Your task to perform on an android device: Go to location settings Image 0: 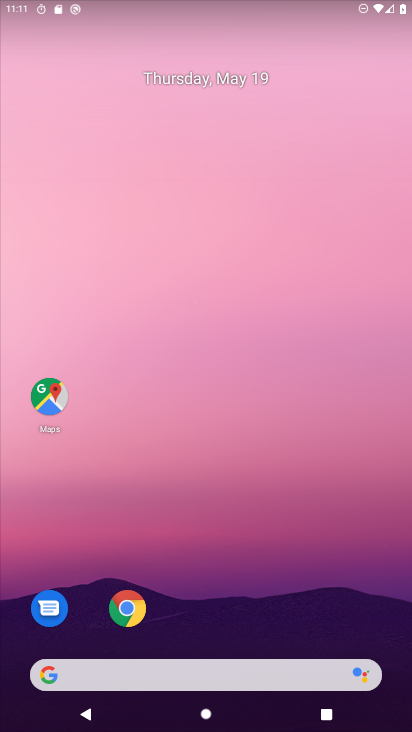
Step 0: drag from (397, 700) to (388, 143)
Your task to perform on an android device: Go to location settings Image 1: 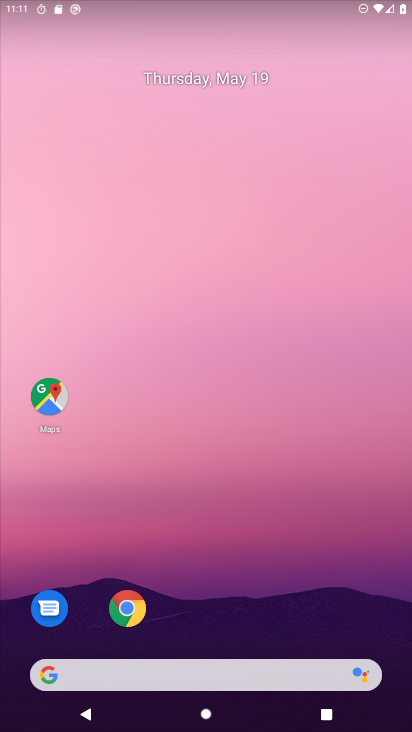
Step 1: drag from (407, 661) to (397, 215)
Your task to perform on an android device: Go to location settings Image 2: 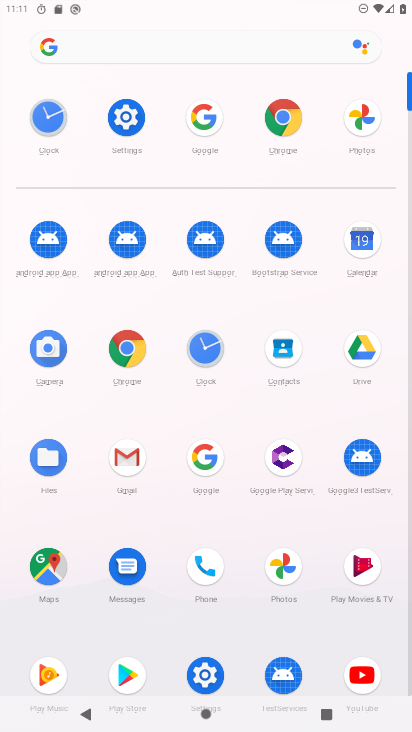
Step 2: click (121, 117)
Your task to perform on an android device: Go to location settings Image 3: 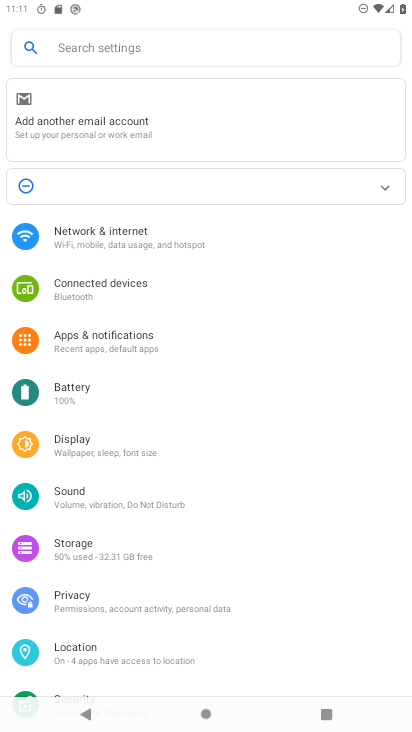
Step 3: click (77, 644)
Your task to perform on an android device: Go to location settings Image 4: 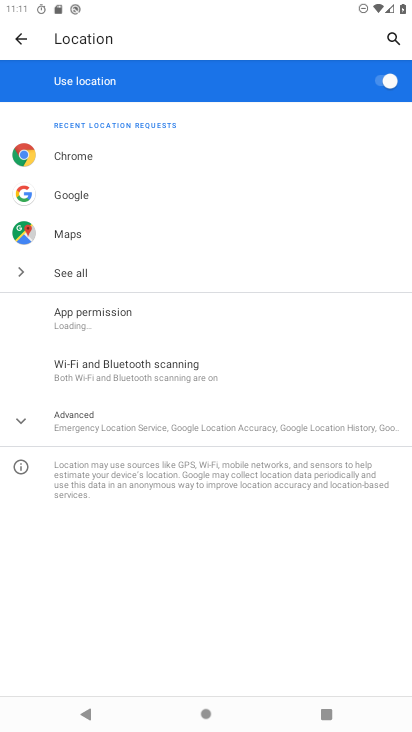
Step 4: task complete